Your task to perform on an android device: show emergency info Image 0: 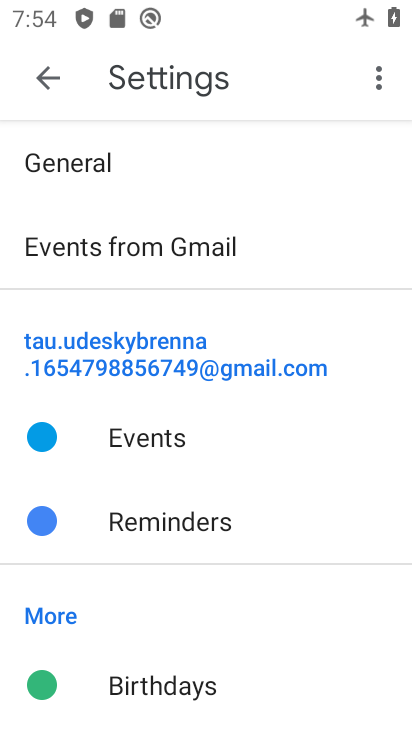
Step 0: press back button
Your task to perform on an android device: show emergency info Image 1: 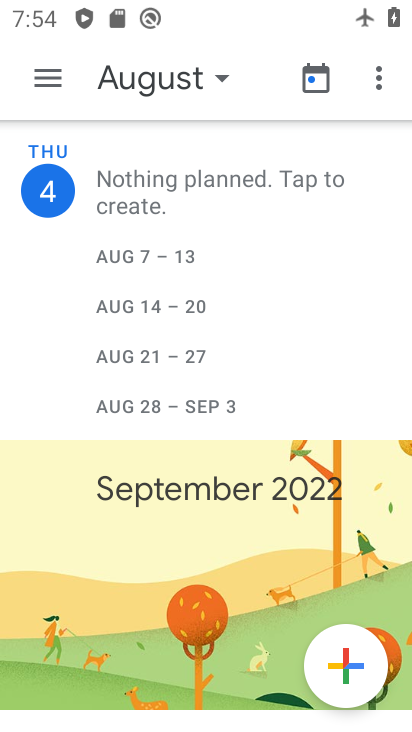
Step 1: press home button
Your task to perform on an android device: show emergency info Image 2: 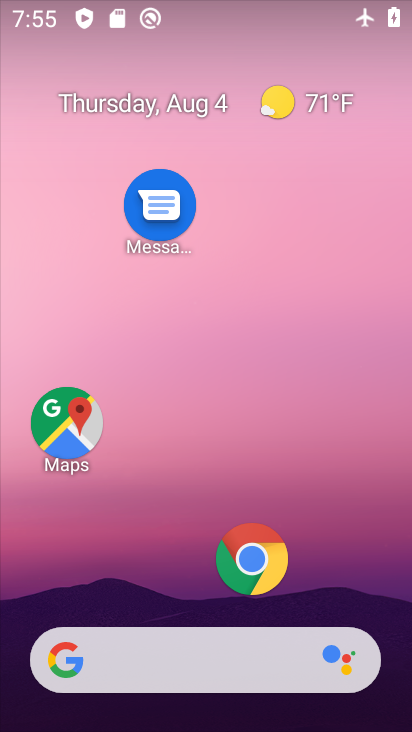
Step 2: drag from (220, 615) to (261, 38)
Your task to perform on an android device: show emergency info Image 3: 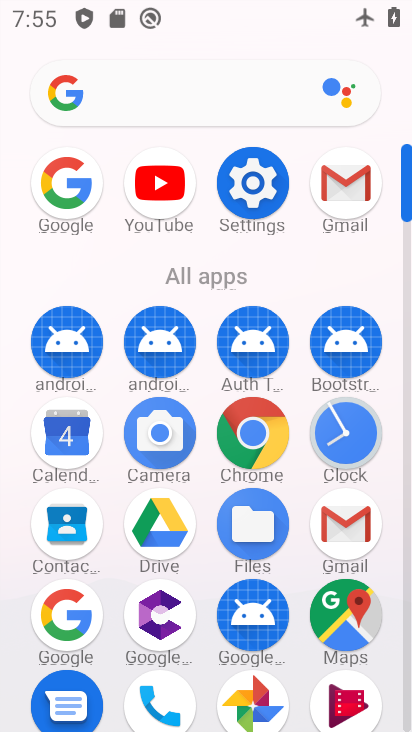
Step 3: click (221, 185)
Your task to perform on an android device: show emergency info Image 4: 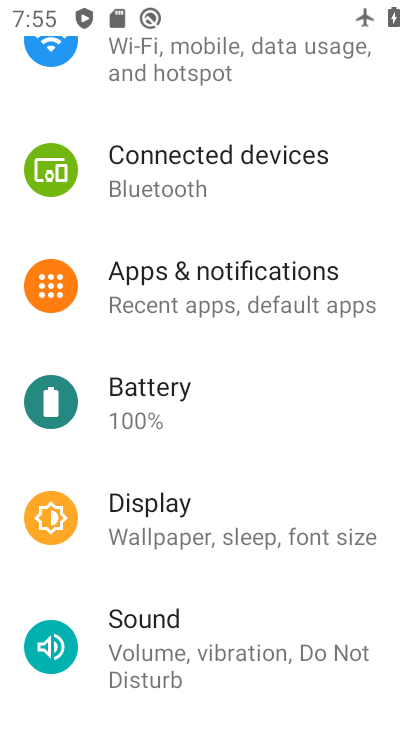
Step 4: drag from (306, 536) to (215, 18)
Your task to perform on an android device: show emergency info Image 5: 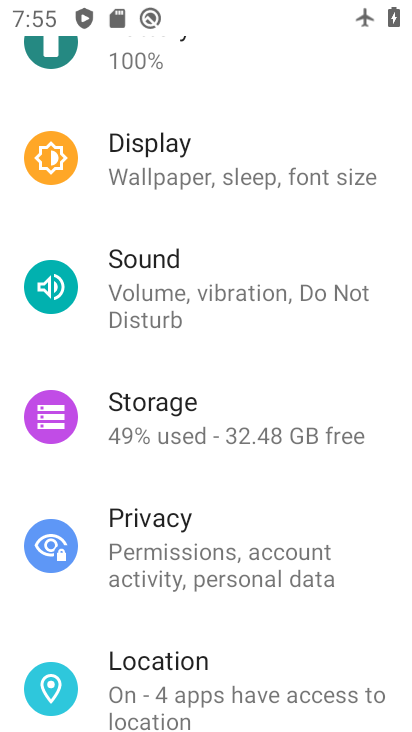
Step 5: drag from (216, 631) to (150, 123)
Your task to perform on an android device: show emergency info Image 6: 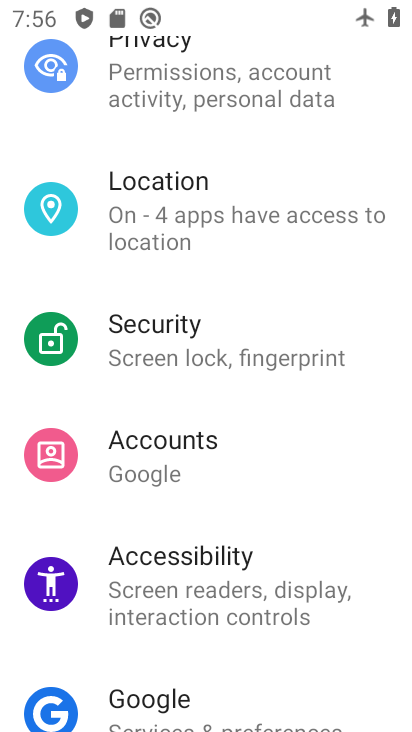
Step 6: drag from (173, 660) to (108, 144)
Your task to perform on an android device: show emergency info Image 7: 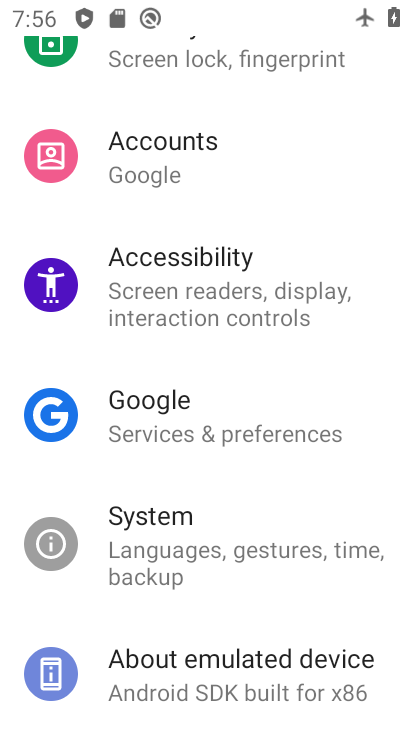
Step 7: click (244, 677)
Your task to perform on an android device: show emergency info Image 8: 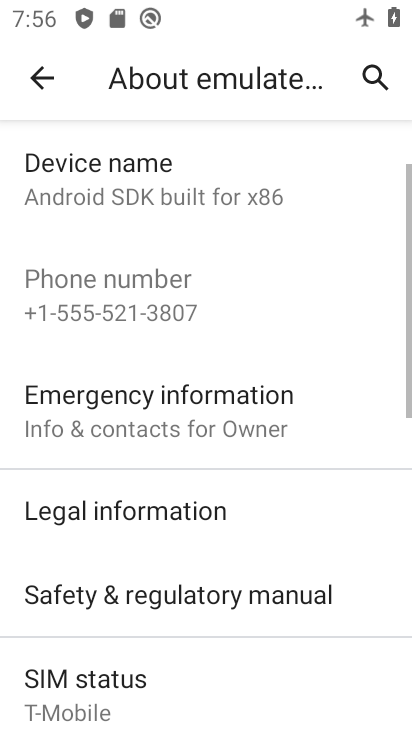
Step 8: click (173, 418)
Your task to perform on an android device: show emergency info Image 9: 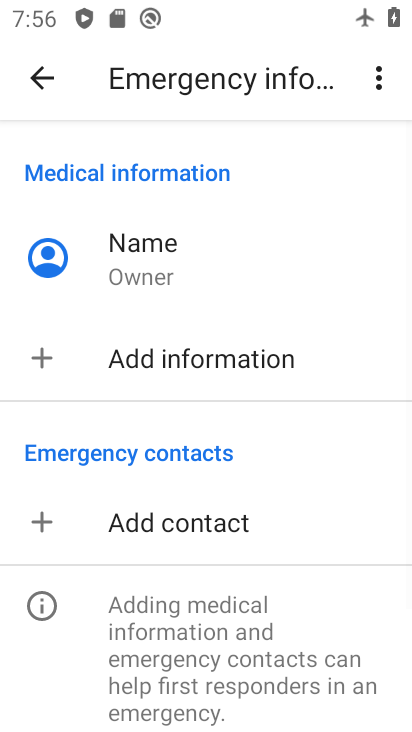
Step 9: task complete